Your task to perform on an android device: Go to Yahoo.com Image 0: 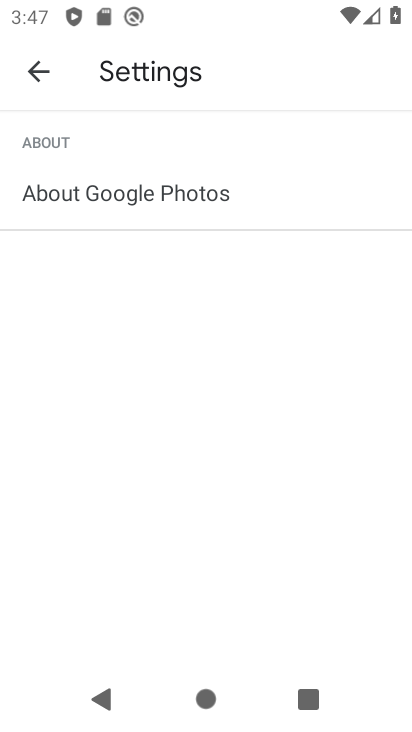
Step 0: press home button
Your task to perform on an android device: Go to Yahoo.com Image 1: 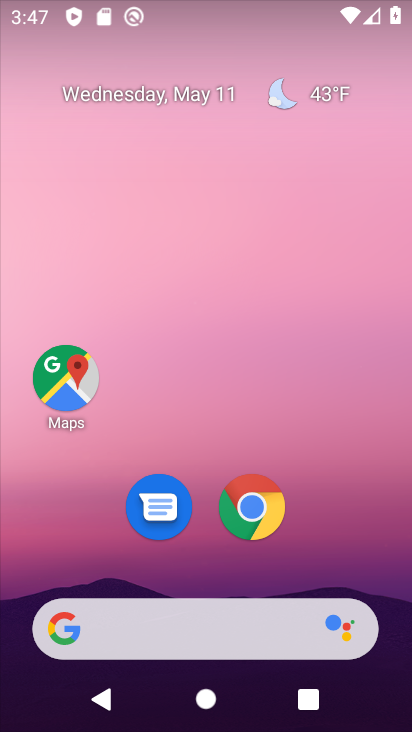
Step 1: click (250, 507)
Your task to perform on an android device: Go to Yahoo.com Image 2: 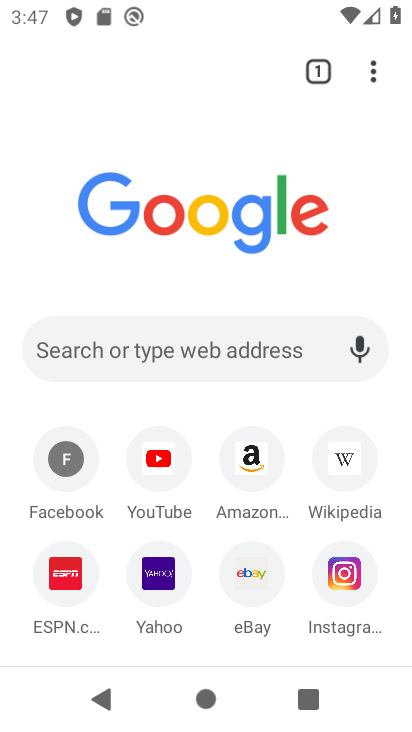
Step 2: click (147, 352)
Your task to perform on an android device: Go to Yahoo.com Image 3: 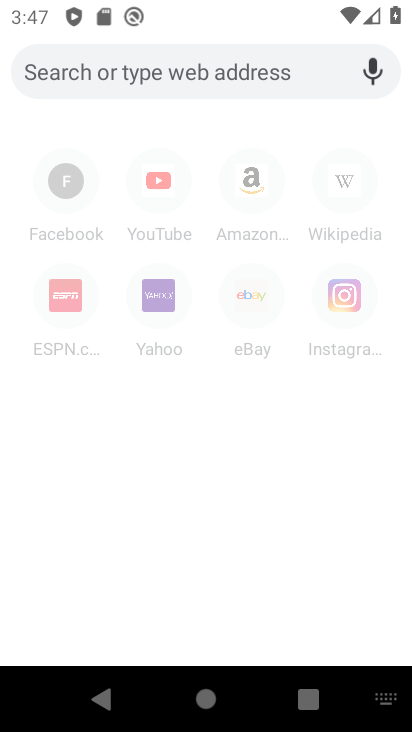
Step 3: type "yahoo.com"
Your task to perform on an android device: Go to Yahoo.com Image 4: 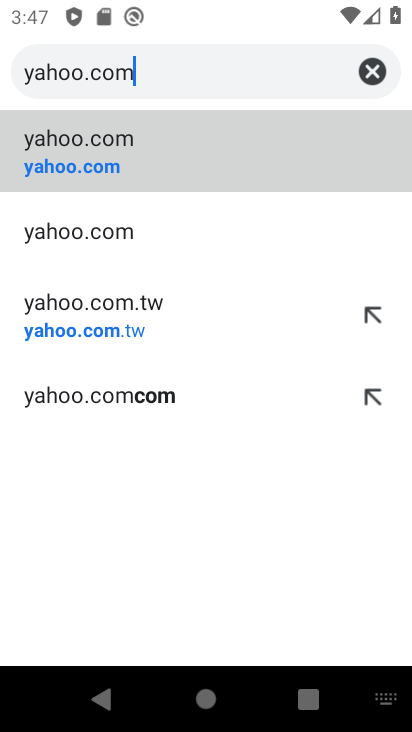
Step 4: click (62, 154)
Your task to perform on an android device: Go to Yahoo.com Image 5: 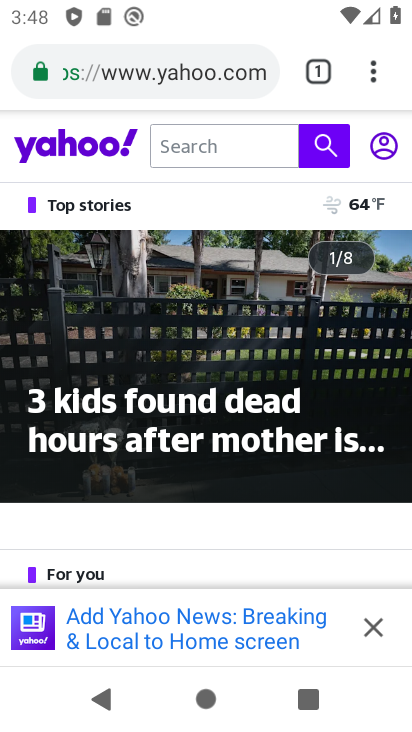
Step 5: task complete